Your task to perform on an android device: open sync settings in chrome Image 0: 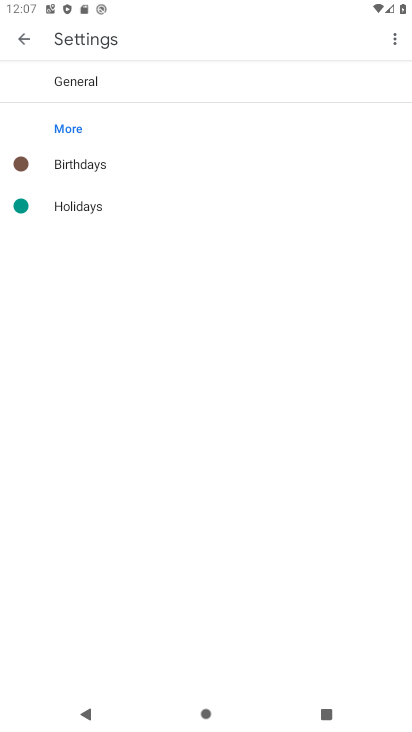
Step 0: press home button
Your task to perform on an android device: open sync settings in chrome Image 1: 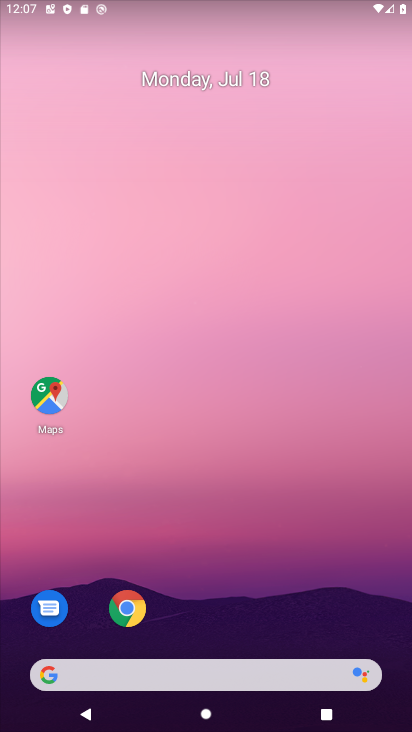
Step 1: click (130, 615)
Your task to perform on an android device: open sync settings in chrome Image 2: 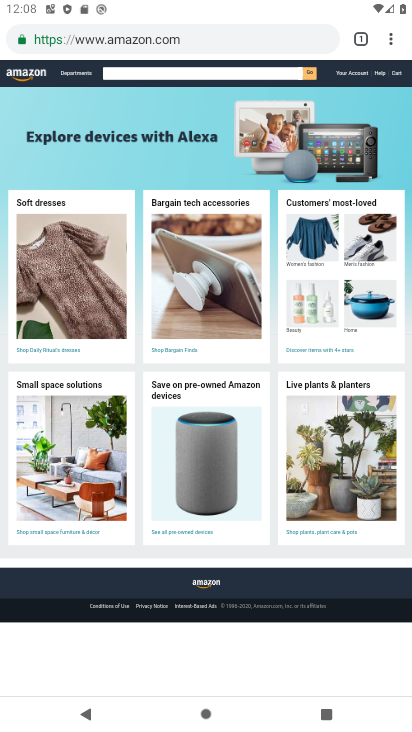
Step 2: click (398, 50)
Your task to perform on an android device: open sync settings in chrome Image 3: 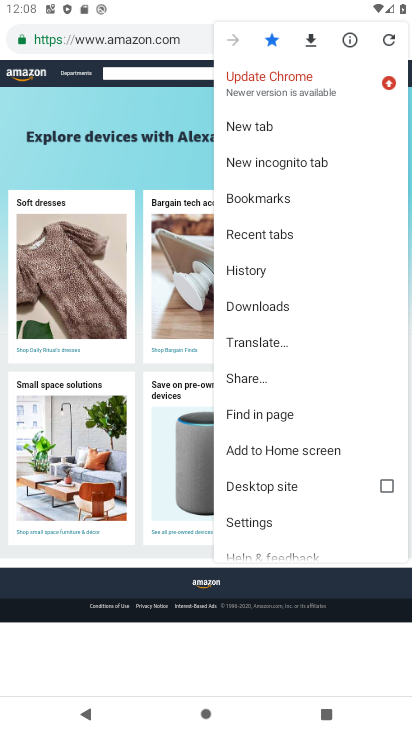
Step 3: click (246, 526)
Your task to perform on an android device: open sync settings in chrome Image 4: 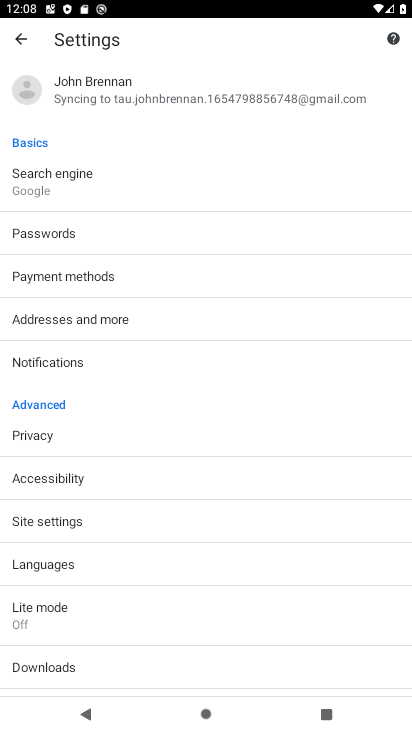
Step 4: click (174, 104)
Your task to perform on an android device: open sync settings in chrome Image 5: 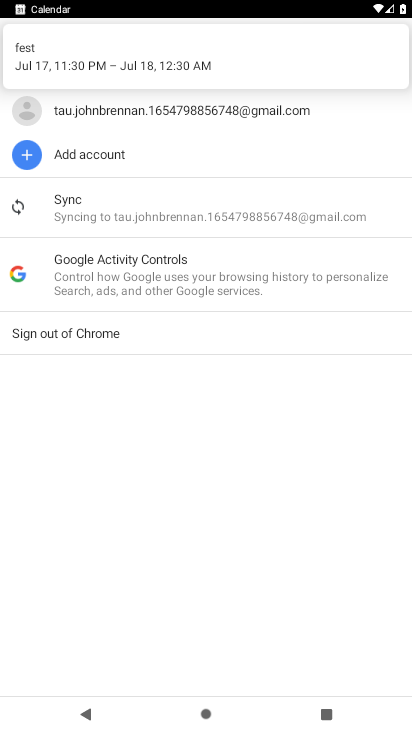
Step 5: click (137, 219)
Your task to perform on an android device: open sync settings in chrome Image 6: 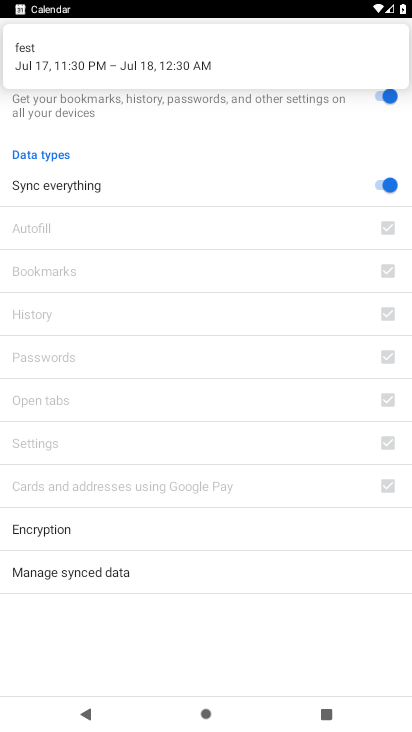
Step 6: task complete